Your task to perform on an android device: empty trash in google photos Image 0: 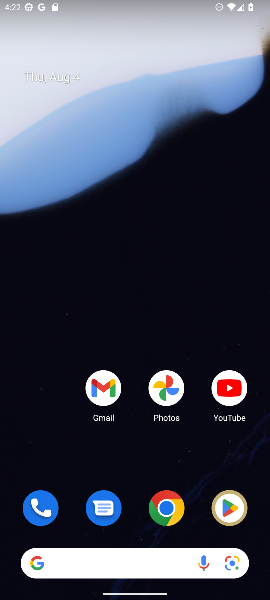
Step 0: click (259, 42)
Your task to perform on an android device: empty trash in google photos Image 1: 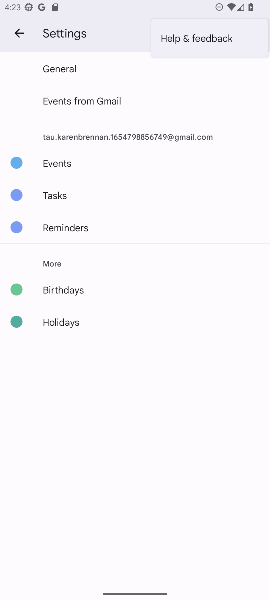
Step 1: press home button
Your task to perform on an android device: empty trash in google photos Image 2: 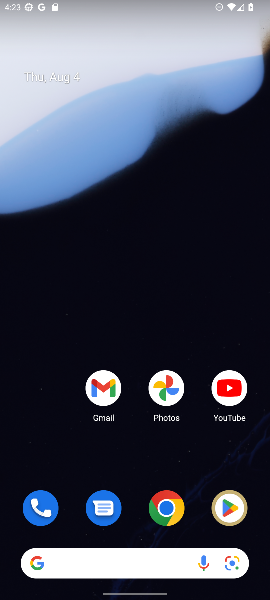
Step 2: drag from (80, 545) to (174, 51)
Your task to perform on an android device: empty trash in google photos Image 3: 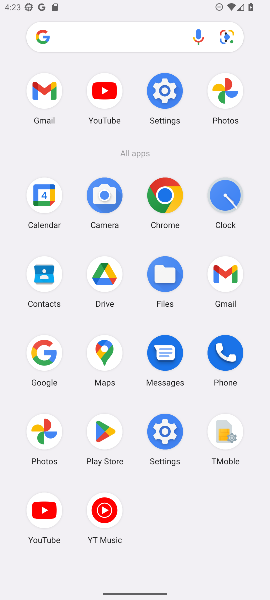
Step 3: click (38, 428)
Your task to perform on an android device: empty trash in google photos Image 4: 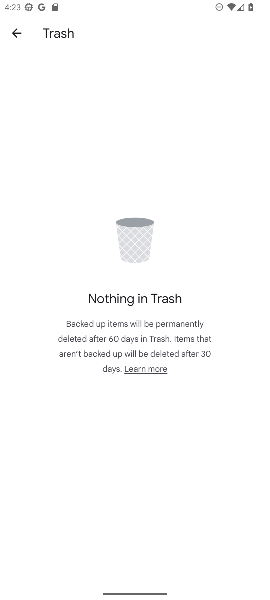
Step 4: task complete